Your task to perform on an android device: turn on wifi Image 0: 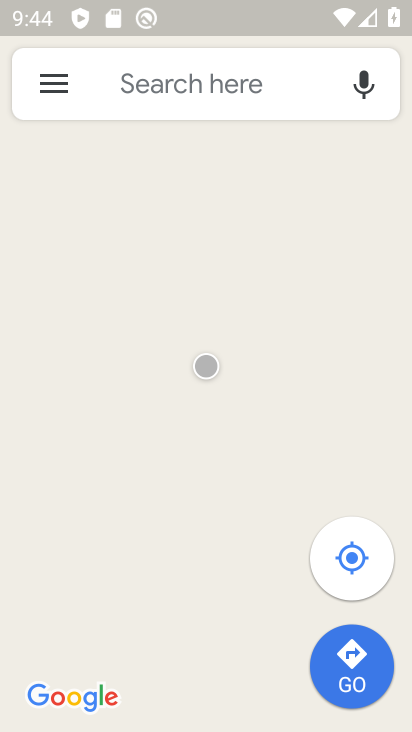
Step 0: drag from (172, 134) to (188, 422)
Your task to perform on an android device: turn on wifi Image 1: 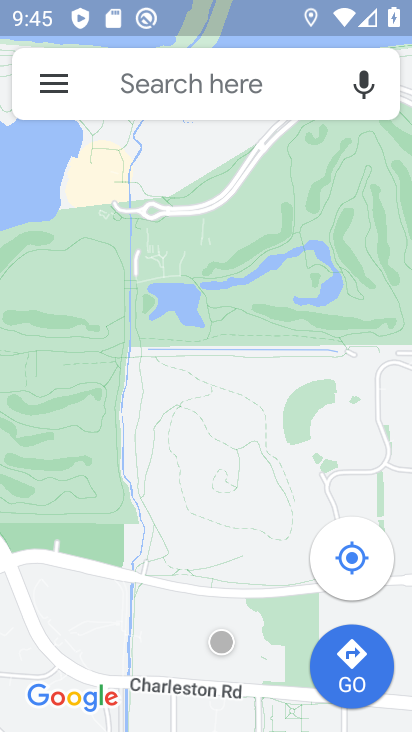
Step 1: task complete